Your task to perform on an android device: open a new tab in the chrome app Image 0: 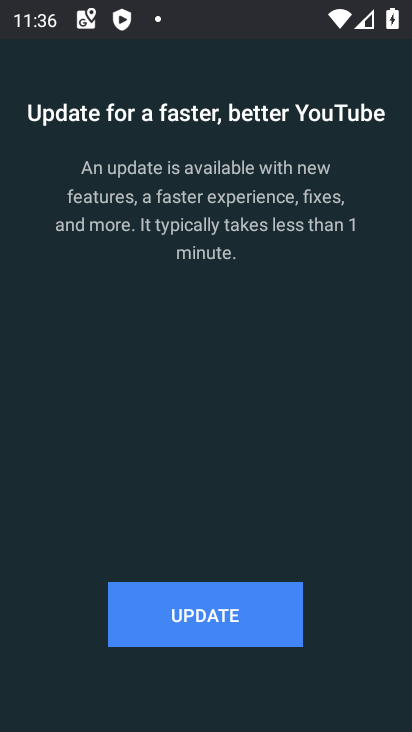
Step 0: press home button
Your task to perform on an android device: open a new tab in the chrome app Image 1: 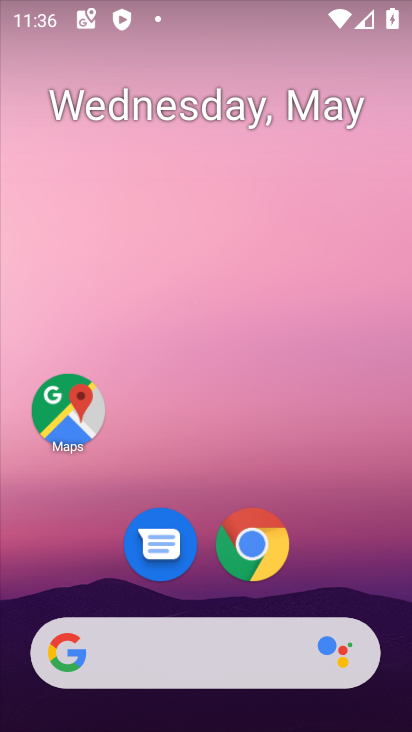
Step 1: drag from (349, 689) to (379, 166)
Your task to perform on an android device: open a new tab in the chrome app Image 2: 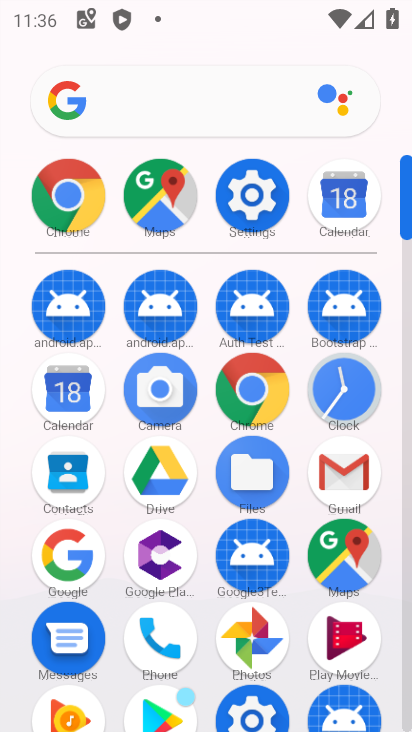
Step 2: click (246, 387)
Your task to perform on an android device: open a new tab in the chrome app Image 3: 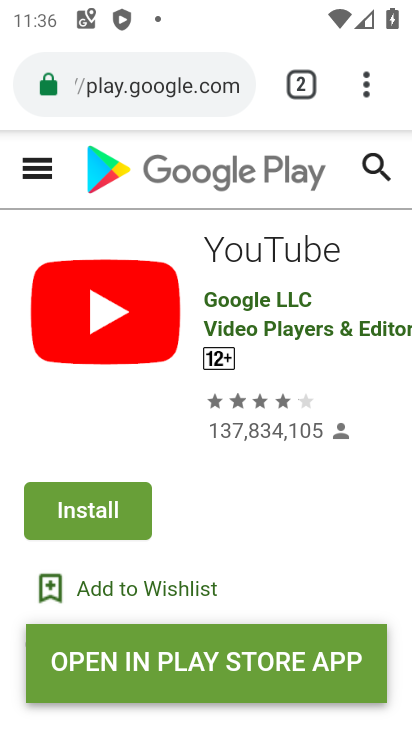
Step 3: click (364, 85)
Your task to perform on an android device: open a new tab in the chrome app Image 4: 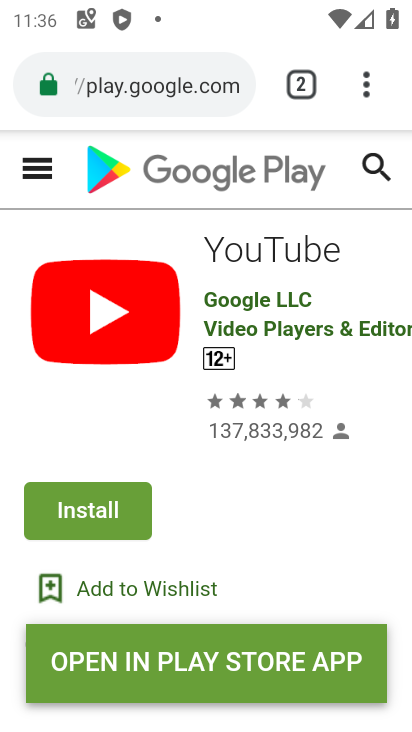
Step 4: task complete